Your task to perform on an android device: Play the last video I watched on Youtube Image 0: 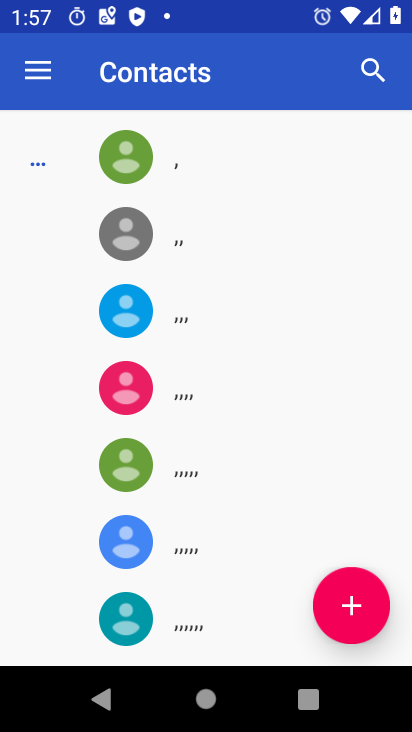
Step 0: press home button
Your task to perform on an android device: Play the last video I watched on Youtube Image 1: 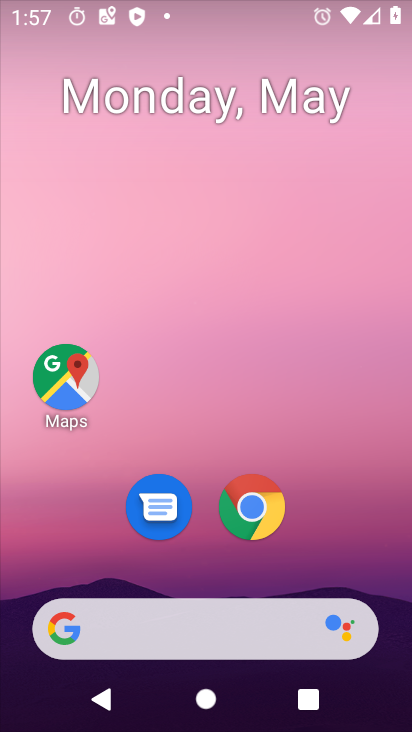
Step 1: drag from (226, 715) to (238, 156)
Your task to perform on an android device: Play the last video I watched on Youtube Image 2: 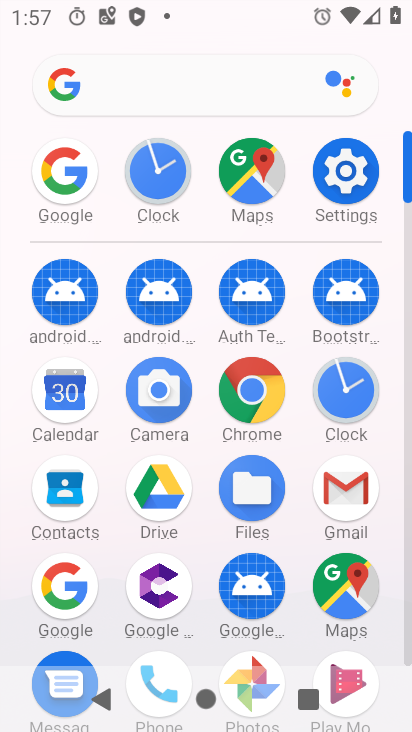
Step 2: drag from (300, 638) to (301, 232)
Your task to perform on an android device: Play the last video I watched on Youtube Image 3: 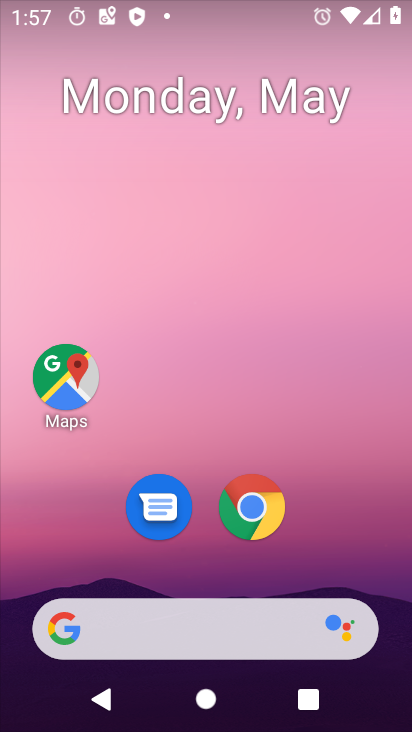
Step 3: drag from (222, 717) to (218, 93)
Your task to perform on an android device: Play the last video I watched on Youtube Image 4: 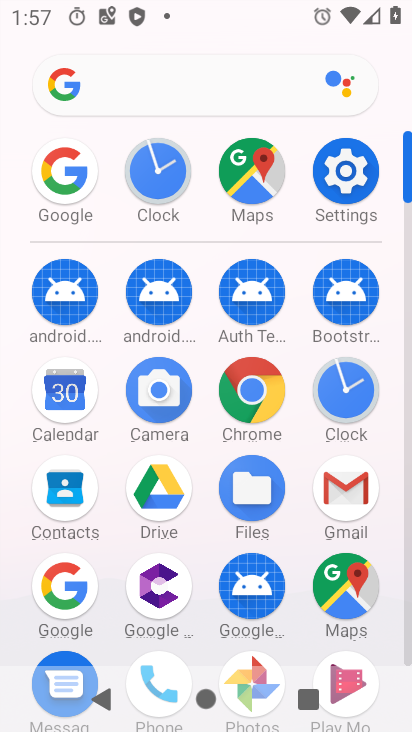
Step 4: drag from (295, 445) to (292, 213)
Your task to perform on an android device: Play the last video I watched on Youtube Image 5: 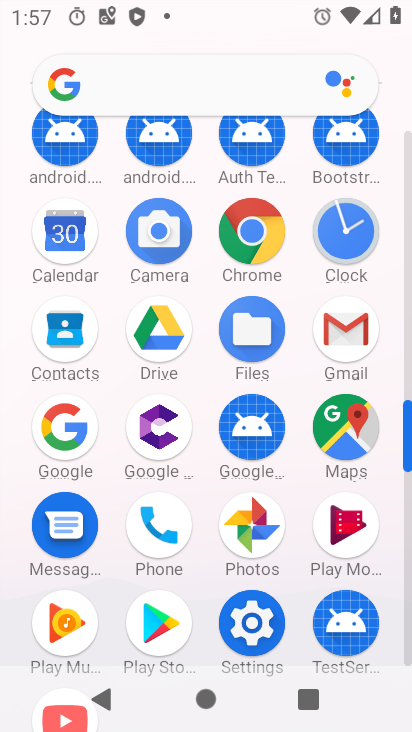
Step 5: drag from (107, 633) to (126, 225)
Your task to perform on an android device: Play the last video I watched on Youtube Image 6: 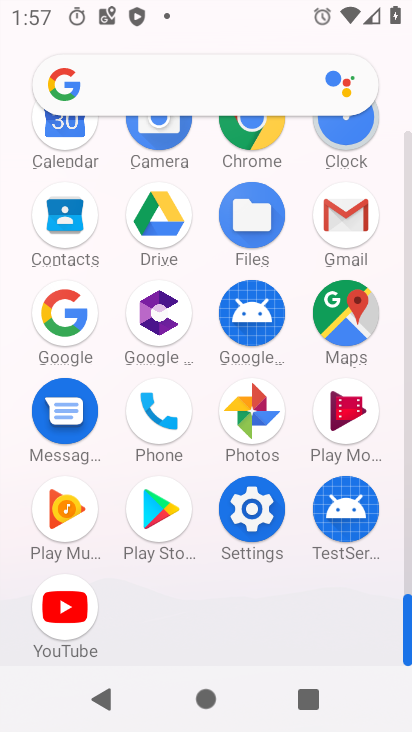
Step 6: click (65, 613)
Your task to perform on an android device: Play the last video I watched on Youtube Image 7: 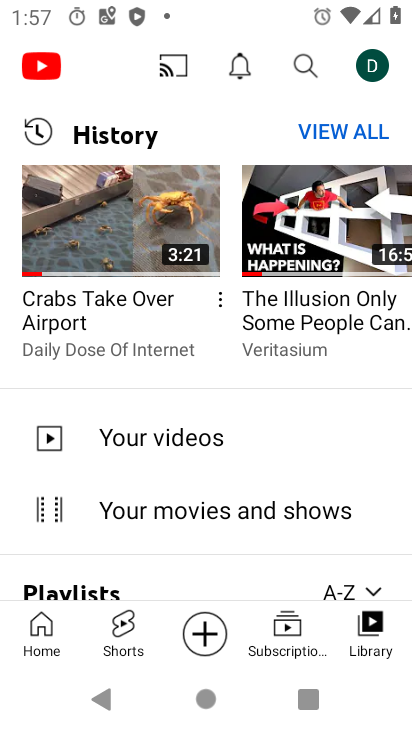
Step 7: click (102, 231)
Your task to perform on an android device: Play the last video I watched on Youtube Image 8: 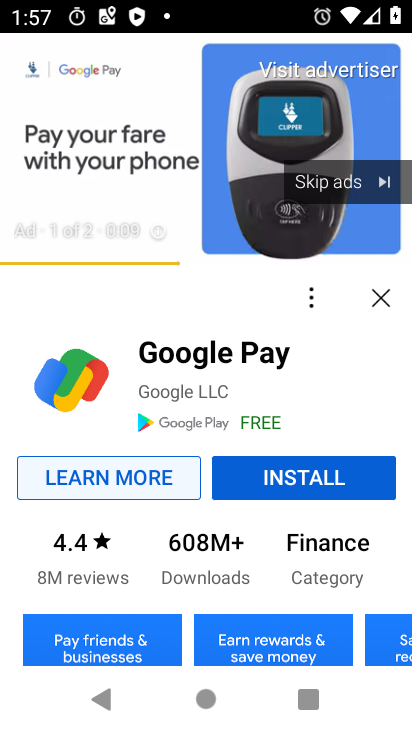
Step 8: click (348, 178)
Your task to perform on an android device: Play the last video I watched on Youtube Image 9: 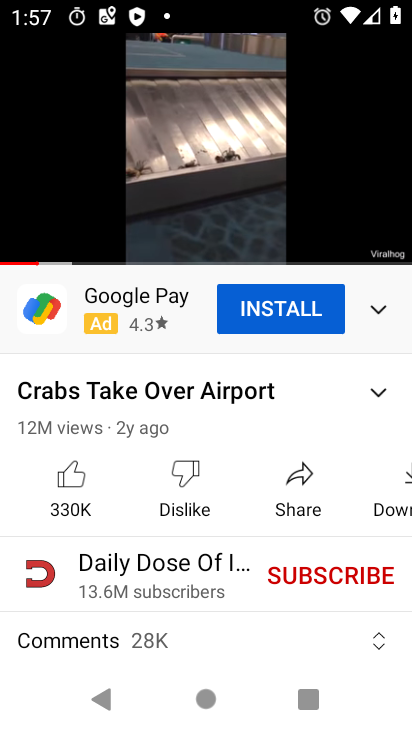
Step 9: click (201, 127)
Your task to perform on an android device: Play the last video I watched on Youtube Image 10: 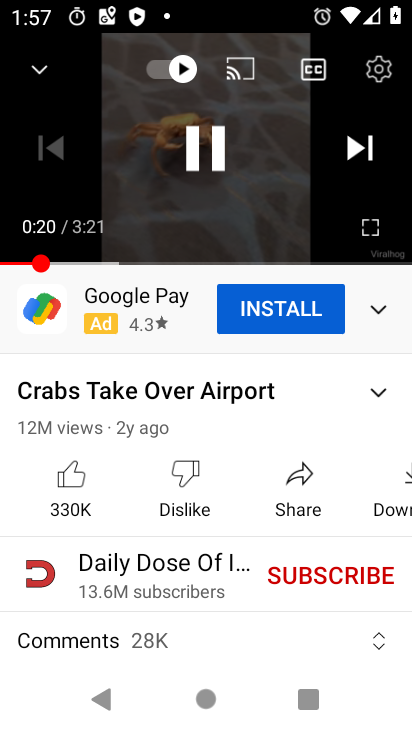
Step 10: click (201, 141)
Your task to perform on an android device: Play the last video I watched on Youtube Image 11: 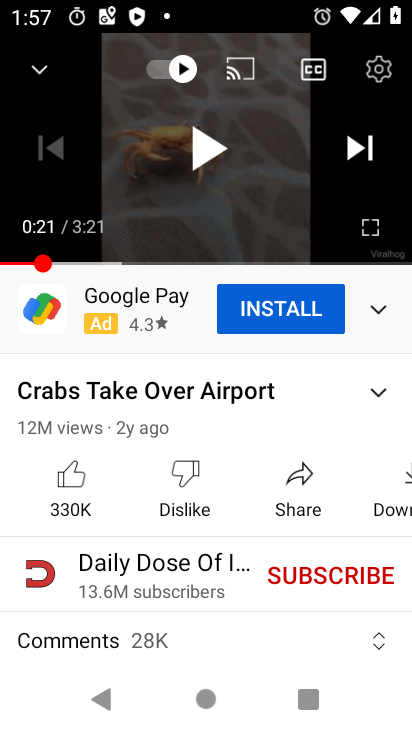
Step 11: task complete